Your task to perform on an android device: Open battery settings Image 0: 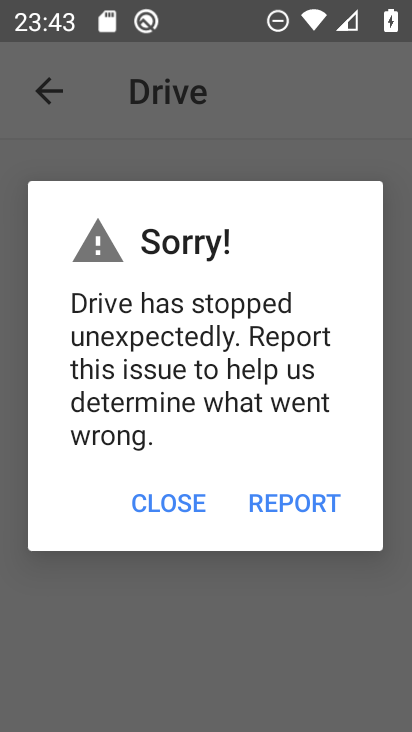
Step 0: drag from (395, 641) to (336, 287)
Your task to perform on an android device: Open battery settings Image 1: 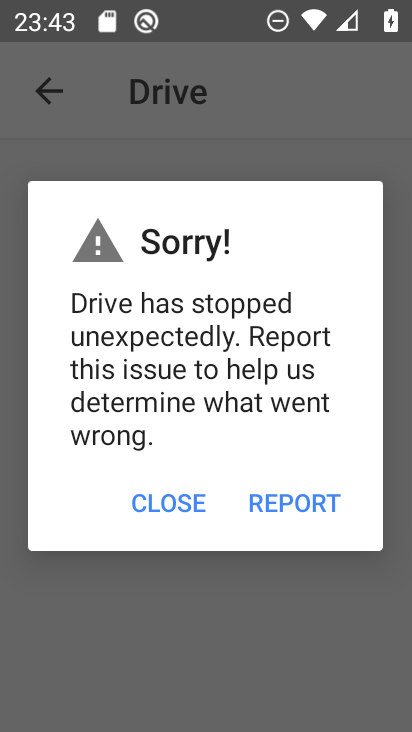
Step 1: press home button
Your task to perform on an android device: Open battery settings Image 2: 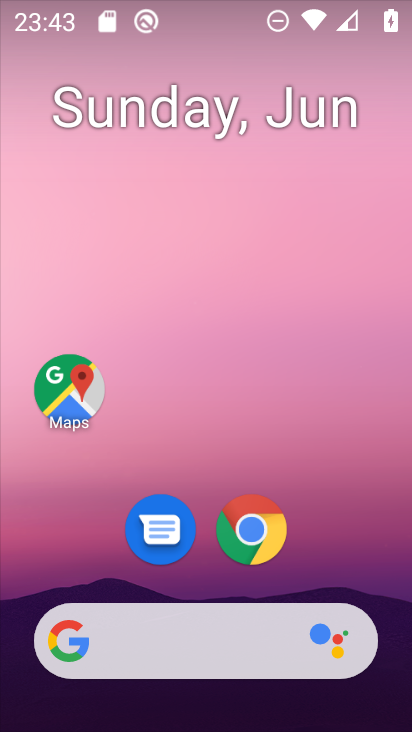
Step 2: drag from (396, 650) to (273, 154)
Your task to perform on an android device: Open battery settings Image 3: 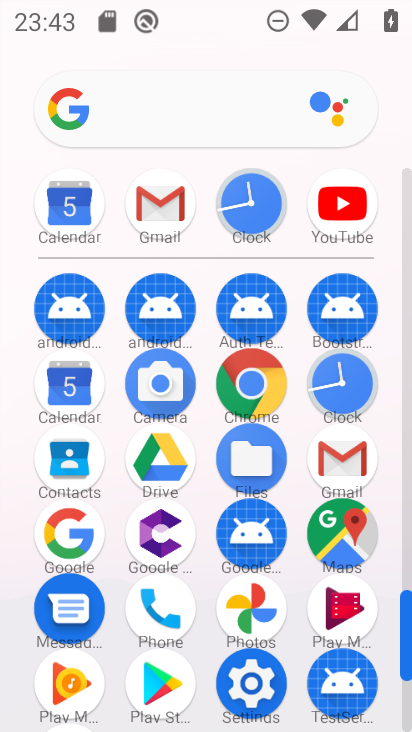
Step 3: click (253, 686)
Your task to perform on an android device: Open battery settings Image 4: 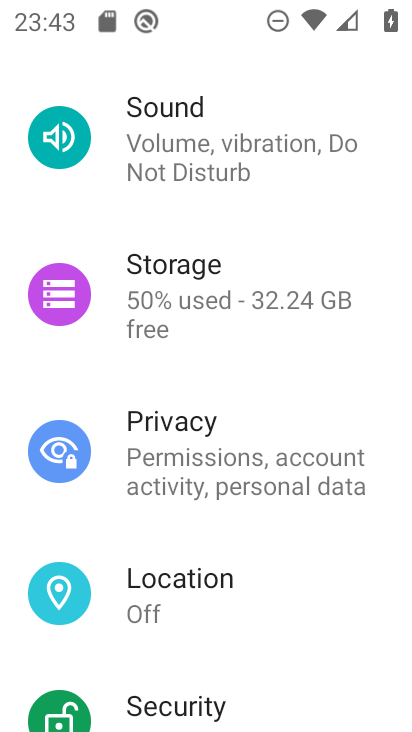
Step 4: drag from (372, 335) to (366, 500)
Your task to perform on an android device: Open battery settings Image 5: 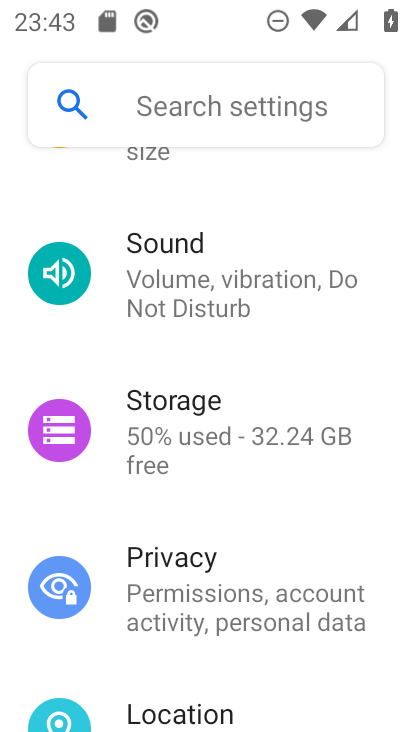
Step 5: drag from (363, 215) to (348, 589)
Your task to perform on an android device: Open battery settings Image 6: 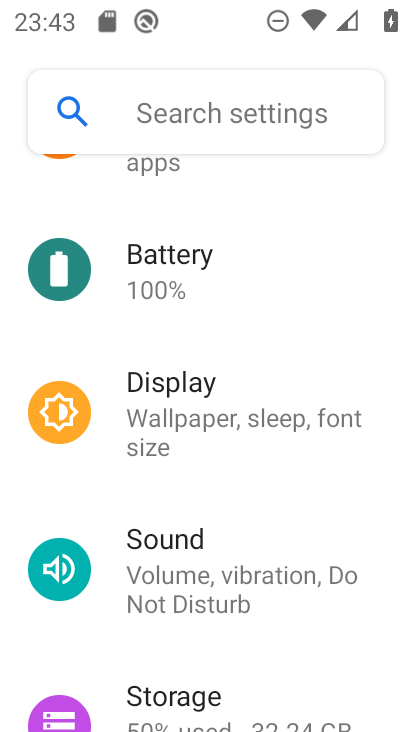
Step 6: click (152, 255)
Your task to perform on an android device: Open battery settings Image 7: 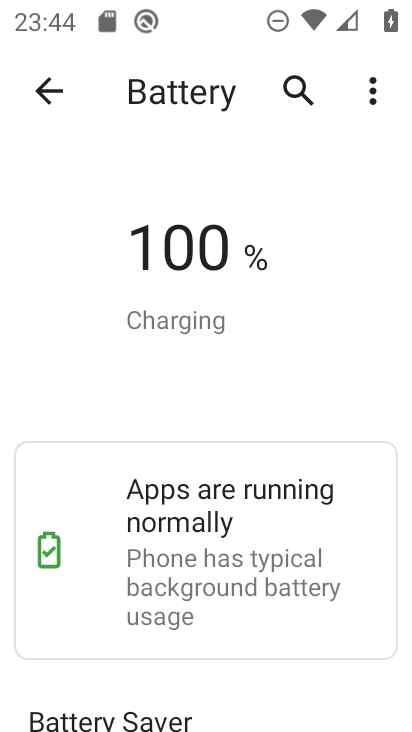
Step 7: task complete